Your task to perform on an android device: turn on notifications settings in the gmail app Image 0: 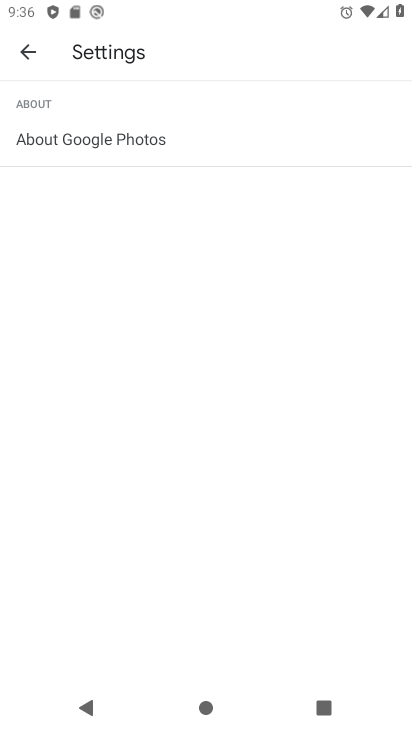
Step 0: press home button
Your task to perform on an android device: turn on notifications settings in the gmail app Image 1: 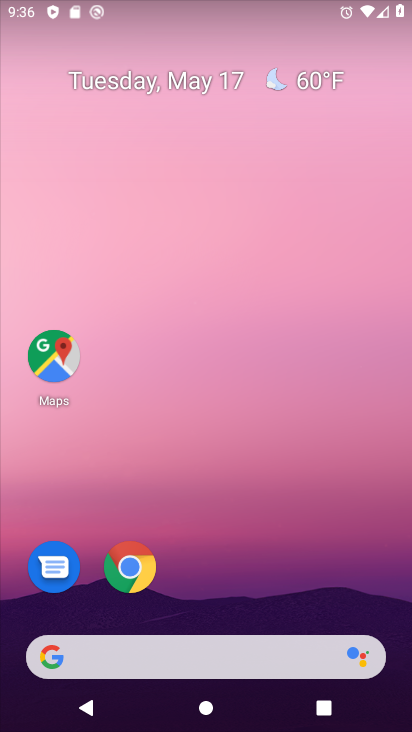
Step 1: drag from (195, 607) to (98, 169)
Your task to perform on an android device: turn on notifications settings in the gmail app Image 2: 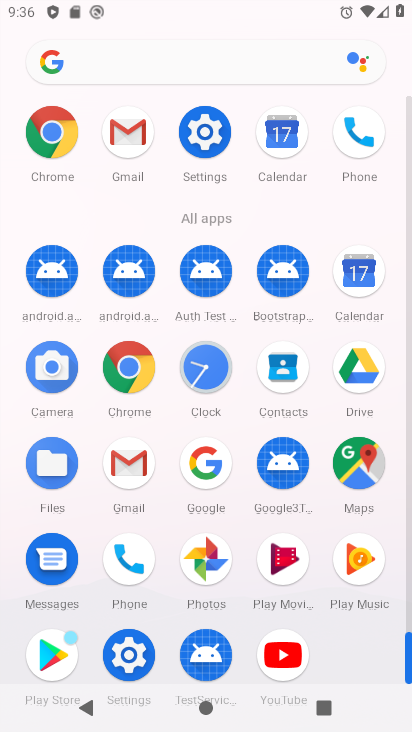
Step 2: drag from (257, 586) to (234, 387)
Your task to perform on an android device: turn on notifications settings in the gmail app Image 3: 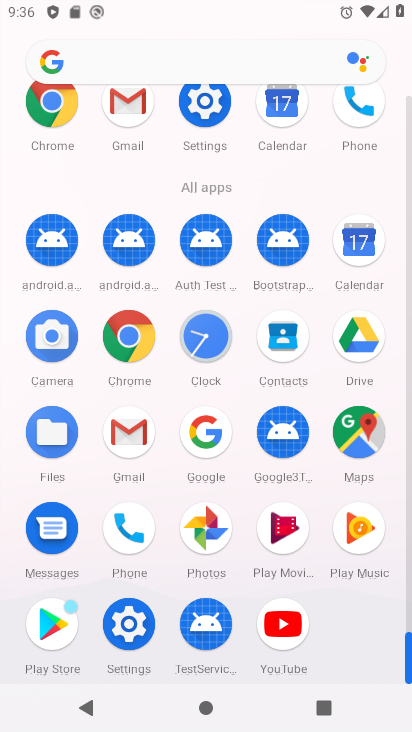
Step 3: click (122, 446)
Your task to perform on an android device: turn on notifications settings in the gmail app Image 4: 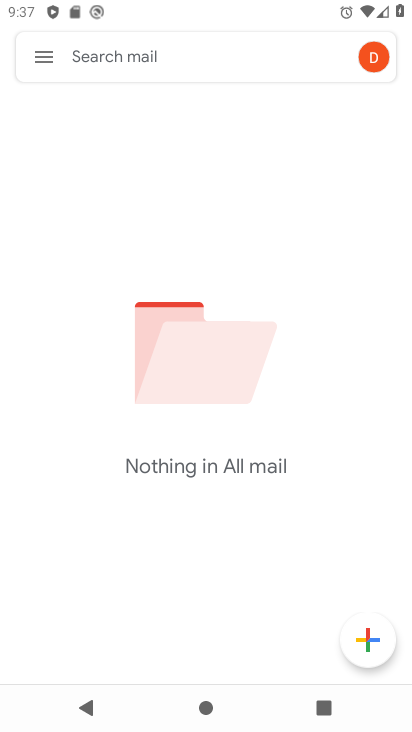
Step 4: click (44, 55)
Your task to perform on an android device: turn on notifications settings in the gmail app Image 5: 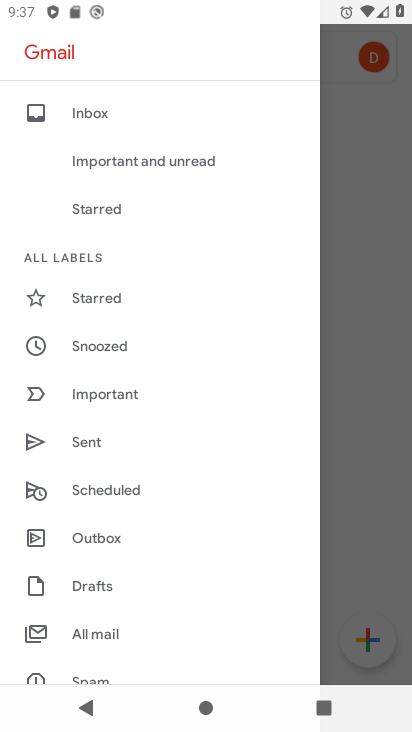
Step 5: drag from (118, 616) to (103, 379)
Your task to perform on an android device: turn on notifications settings in the gmail app Image 6: 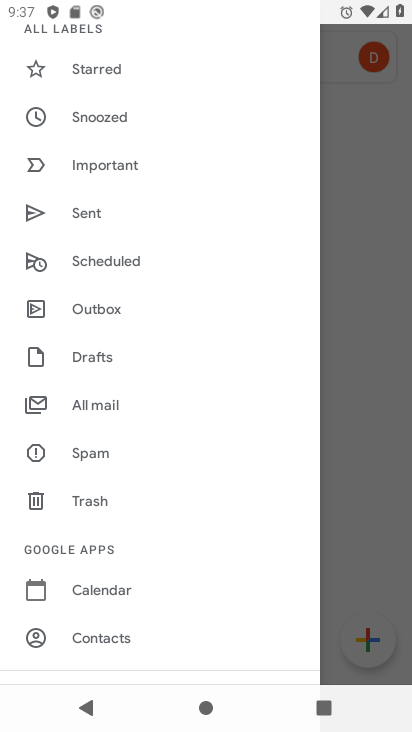
Step 6: drag from (173, 598) to (177, 427)
Your task to perform on an android device: turn on notifications settings in the gmail app Image 7: 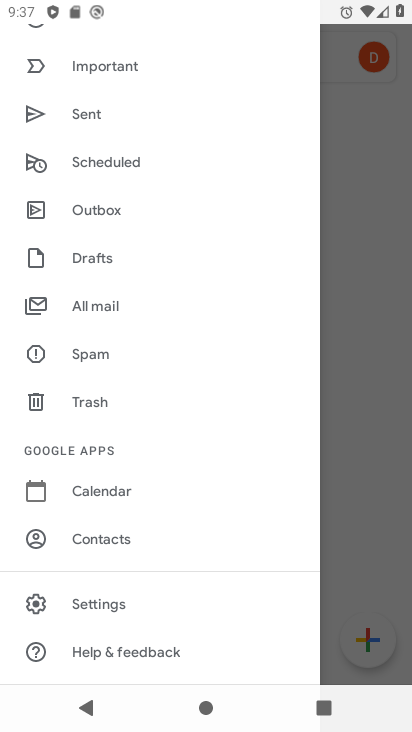
Step 7: click (94, 603)
Your task to perform on an android device: turn on notifications settings in the gmail app Image 8: 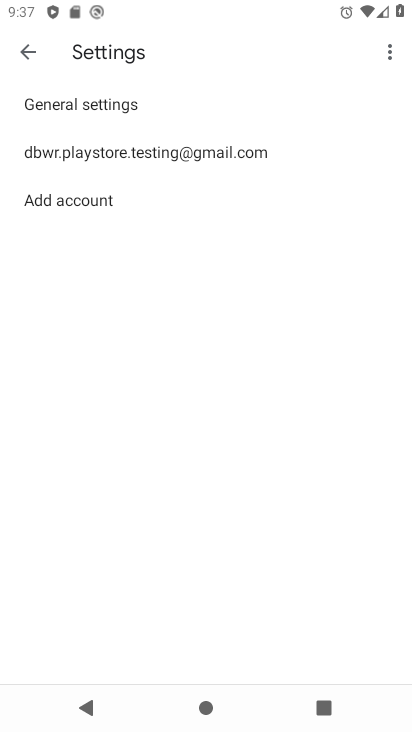
Step 8: click (174, 163)
Your task to perform on an android device: turn on notifications settings in the gmail app Image 9: 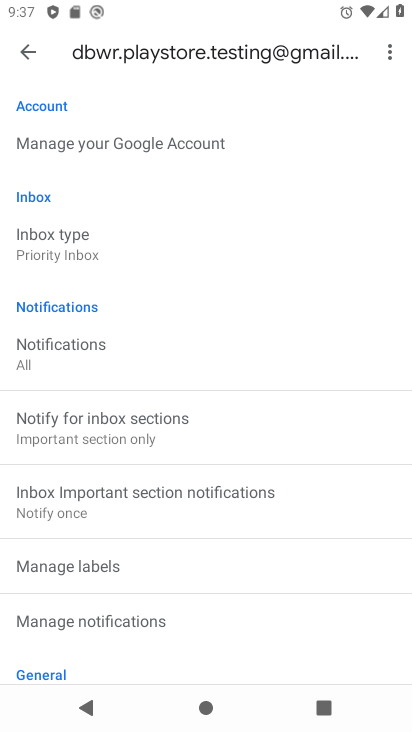
Step 9: click (37, 368)
Your task to perform on an android device: turn on notifications settings in the gmail app Image 10: 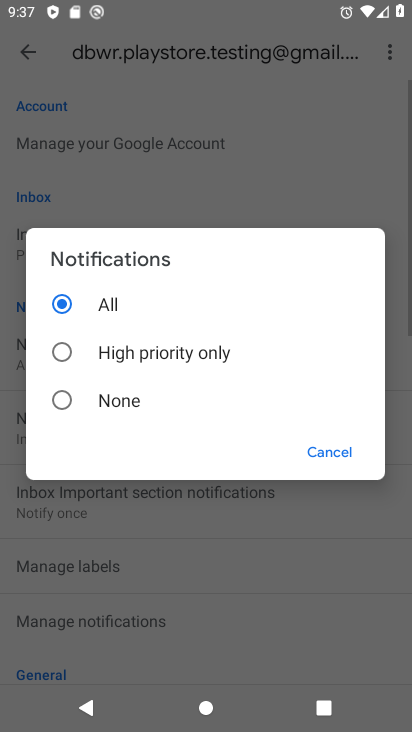
Step 10: click (60, 392)
Your task to perform on an android device: turn on notifications settings in the gmail app Image 11: 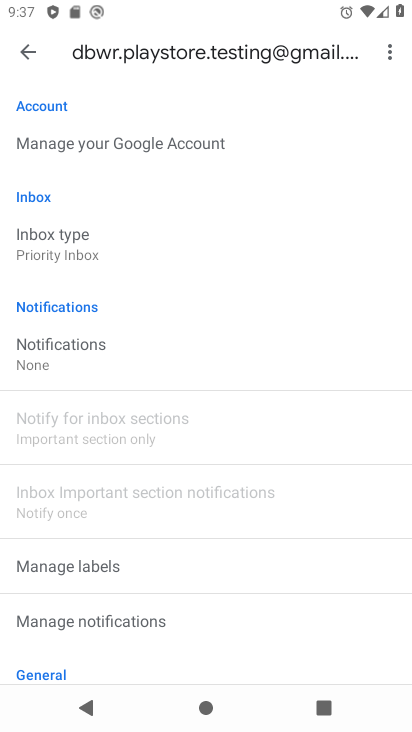
Step 11: click (38, 359)
Your task to perform on an android device: turn on notifications settings in the gmail app Image 12: 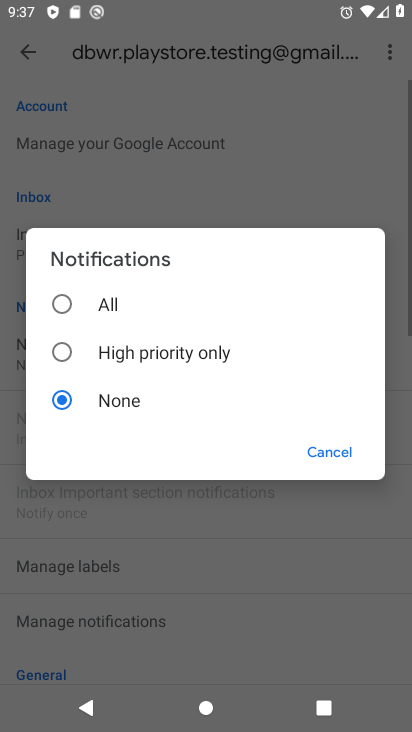
Step 12: click (62, 314)
Your task to perform on an android device: turn on notifications settings in the gmail app Image 13: 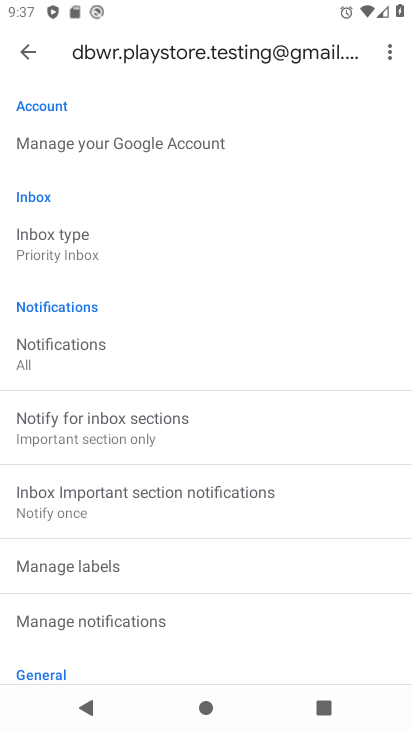
Step 13: task complete